Your task to perform on an android device: Go to Google Image 0: 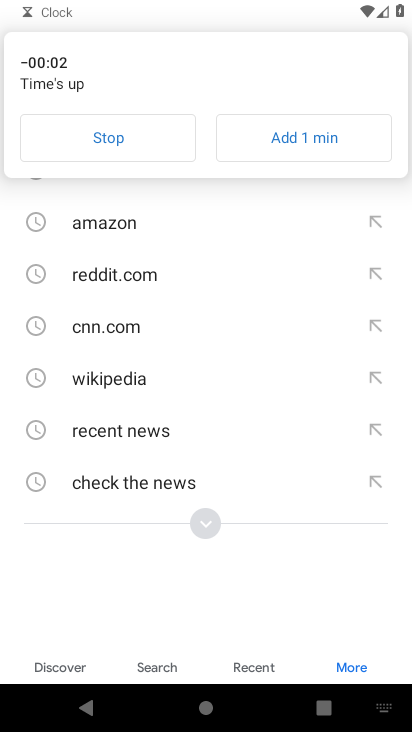
Step 0: click (156, 147)
Your task to perform on an android device: Go to Google Image 1: 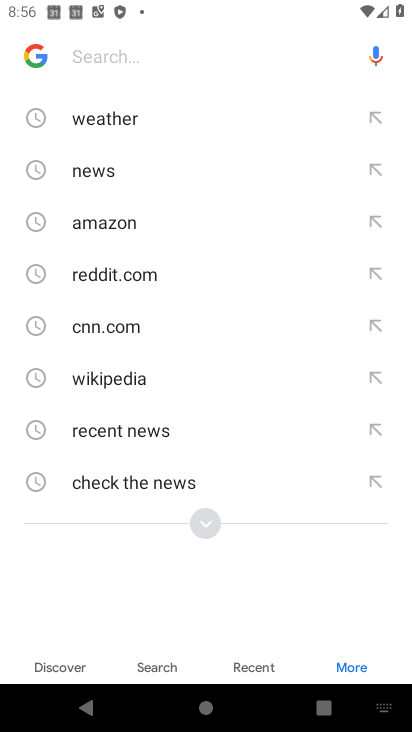
Step 1: press home button
Your task to perform on an android device: Go to Google Image 2: 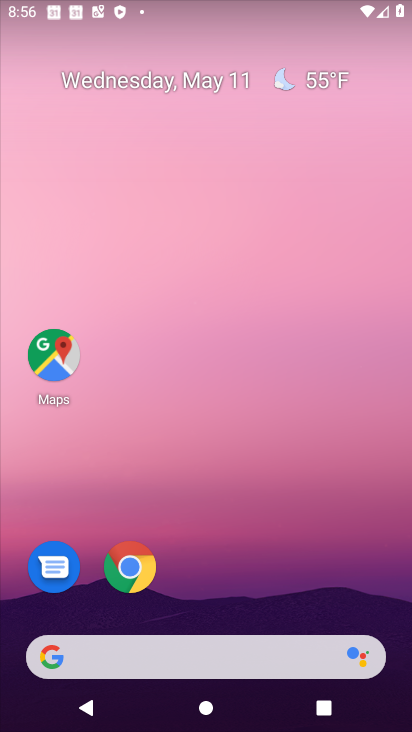
Step 2: click (189, 658)
Your task to perform on an android device: Go to Google Image 3: 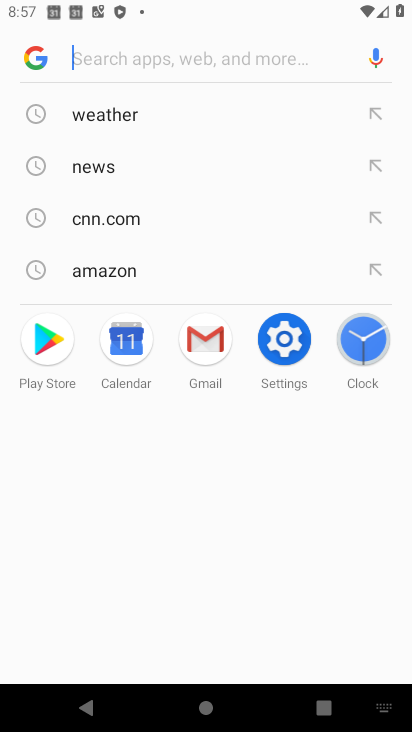
Step 3: click (29, 48)
Your task to perform on an android device: Go to Google Image 4: 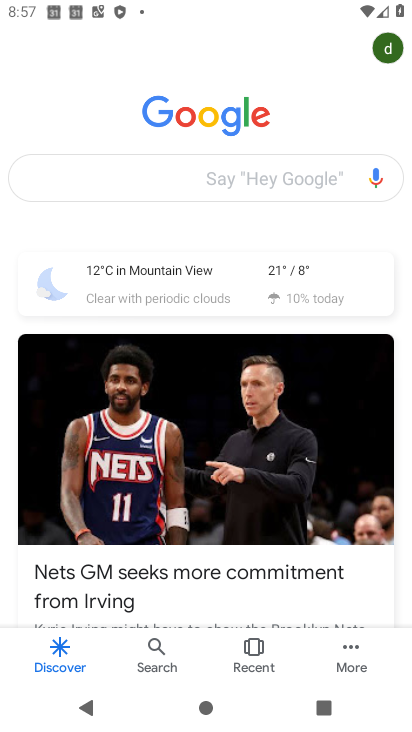
Step 4: task complete